Your task to perform on an android device: What's on my calendar today? Image 0: 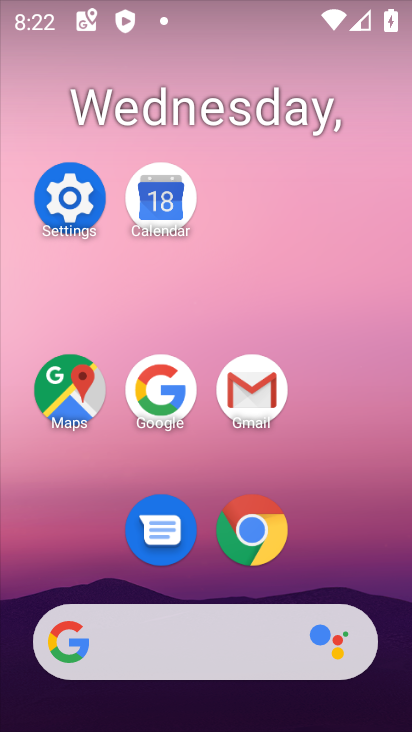
Step 0: click (166, 211)
Your task to perform on an android device: What's on my calendar today? Image 1: 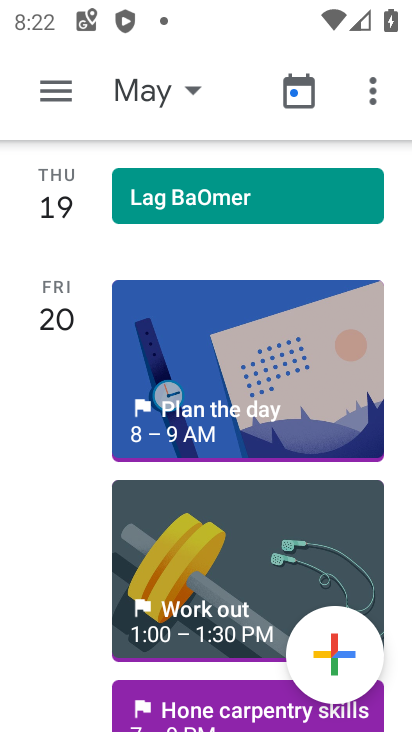
Step 1: click (46, 205)
Your task to perform on an android device: What's on my calendar today? Image 2: 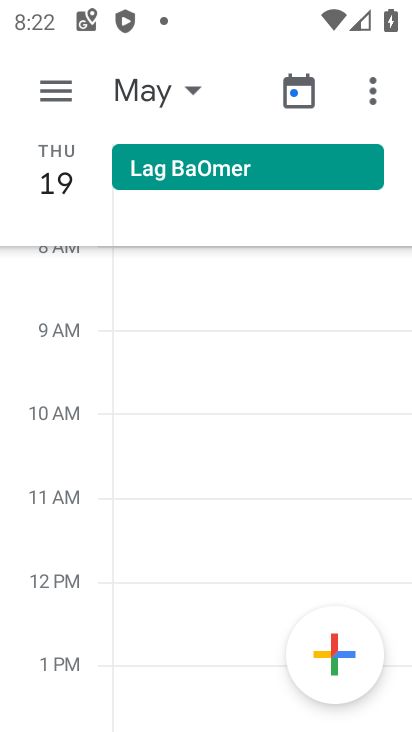
Step 2: task complete